Your task to perform on an android device: Go to ESPN.com Image 0: 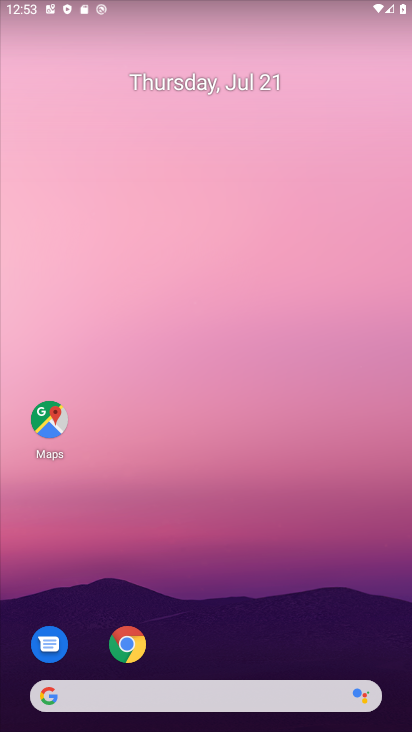
Step 0: click (133, 651)
Your task to perform on an android device: Go to ESPN.com Image 1: 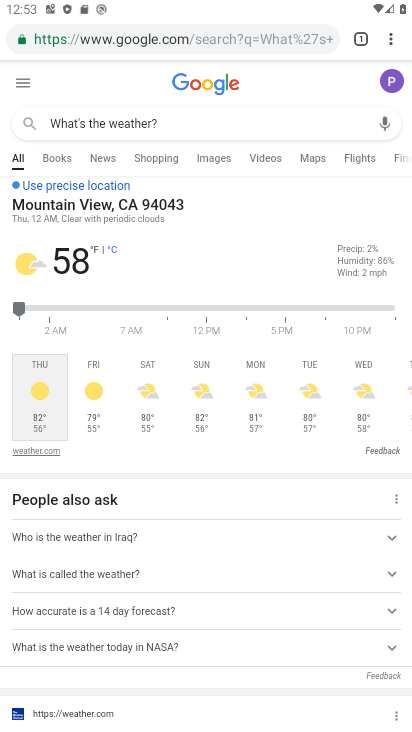
Step 1: click (142, 36)
Your task to perform on an android device: Go to ESPN.com Image 2: 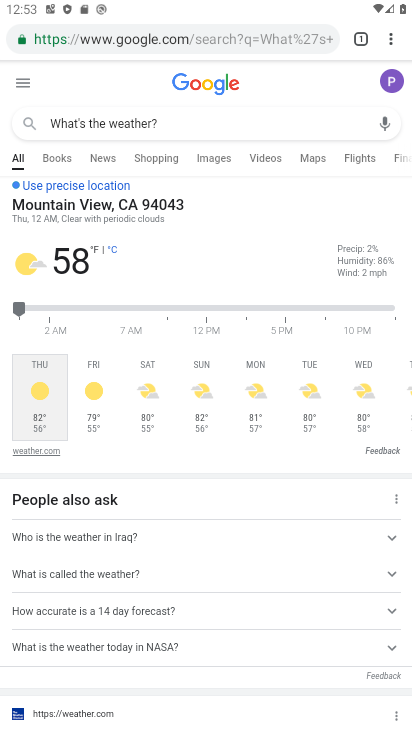
Step 2: click (144, 36)
Your task to perform on an android device: Go to ESPN.com Image 3: 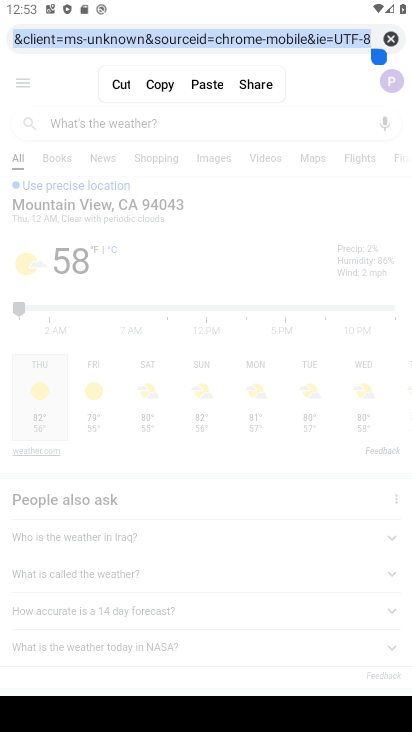
Step 3: type "ESPN.com"
Your task to perform on an android device: Go to ESPN.com Image 4: 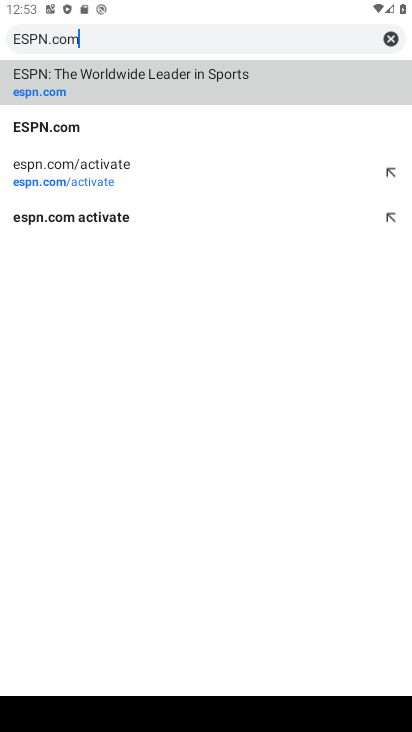
Step 4: type ""
Your task to perform on an android device: Go to ESPN.com Image 5: 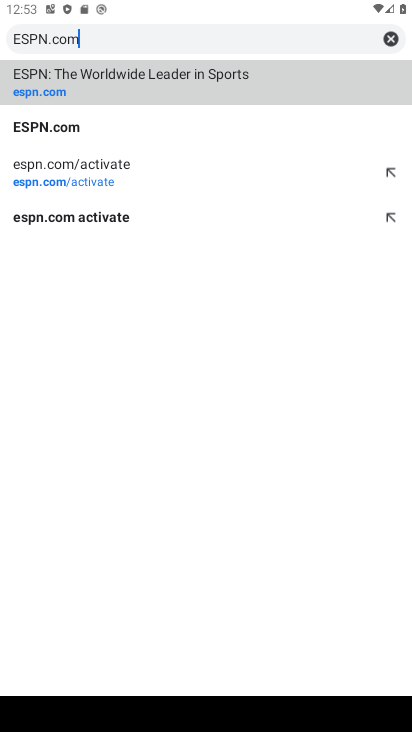
Step 5: click (132, 78)
Your task to perform on an android device: Go to ESPN.com Image 6: 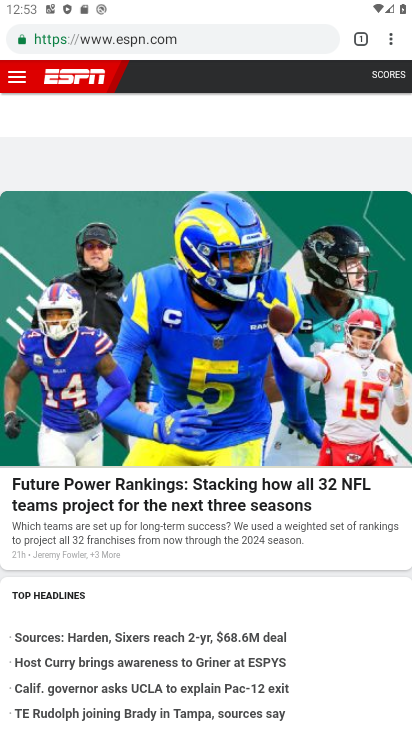
Step 6: task complete